Your task to perform on an android device: check android version Image 0: 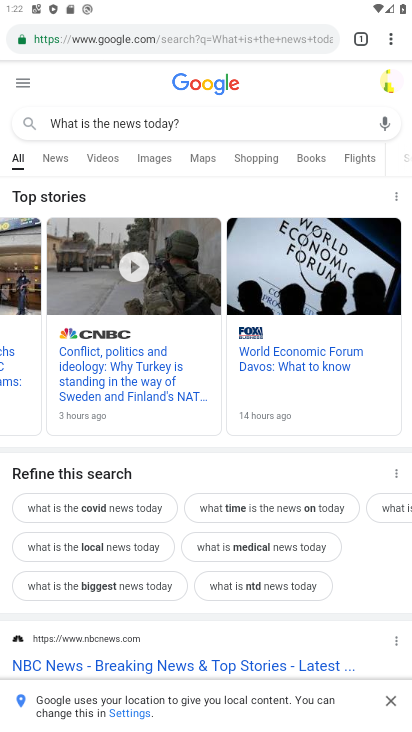
Step 0: press back button
Your task to perform on an android device: check android version Image 1: 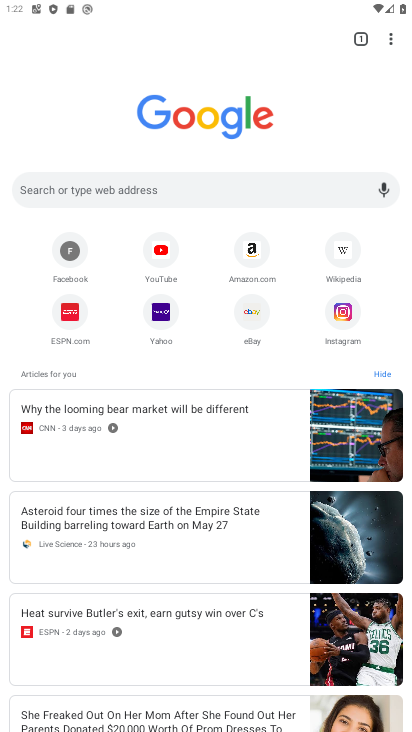
Step 1: press back button
Your task to perform on an android device: check android version Image 2: 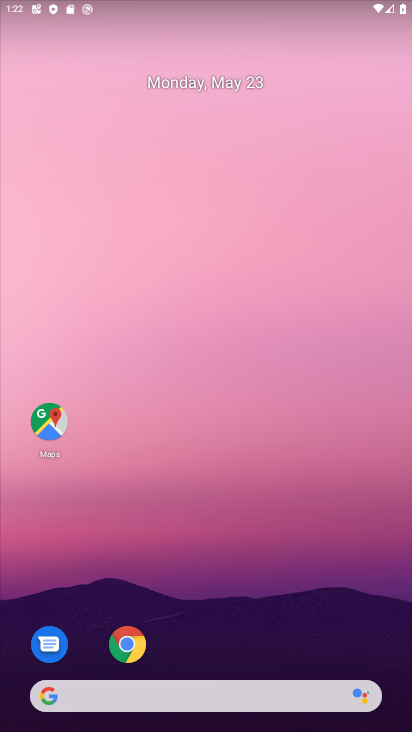
Step 2: drag from (246, 559) to (219, 0)
Your task to perform on an android device: check android version Image 3: 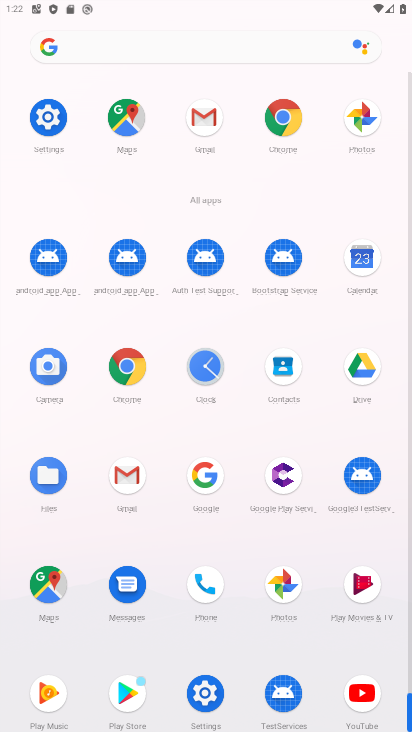
Step 3: click (46, 114)
Your task to perform on an android device: check android version Image 4: 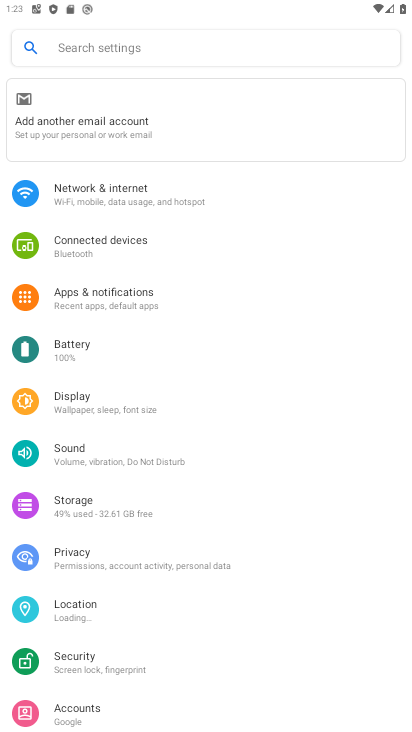
Step 4: drag from (335, 569) to (337, 152)
Your task to perform on an android device: check android version Image 5: 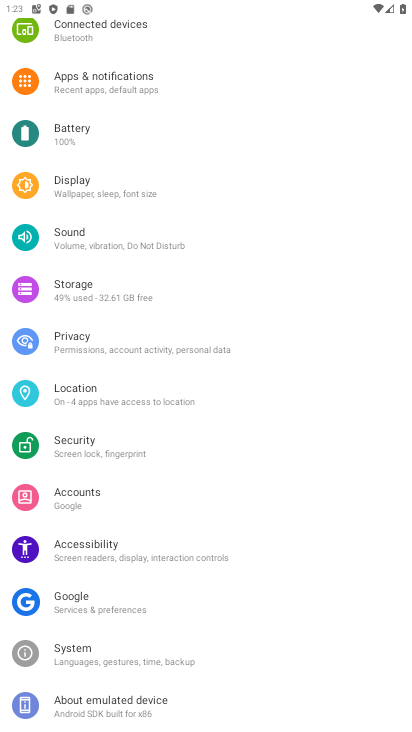
Step 5: drag from (251, 653) to (279, 134)
Your task to perform on an android device: check android version Image 6: 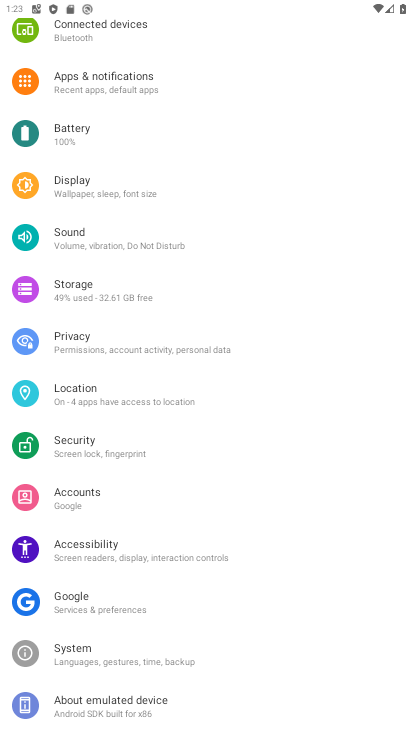
Step 6: click (100, 718)
Your task to perform on an android device: check android version Image 7: 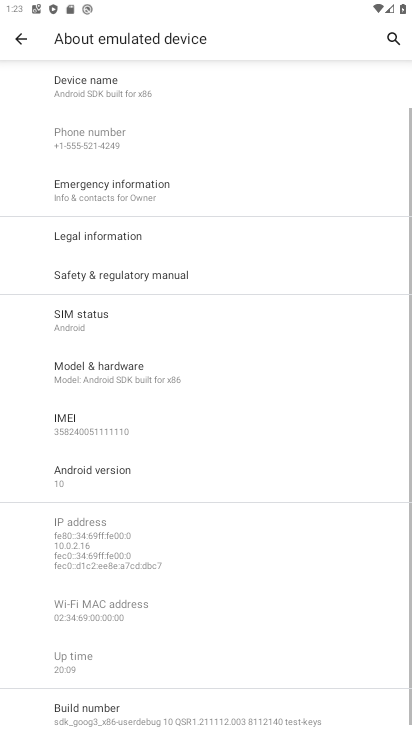
Step 7: task complete